Your task to perform on an android device: Do I have any events this weekend? Image 0: 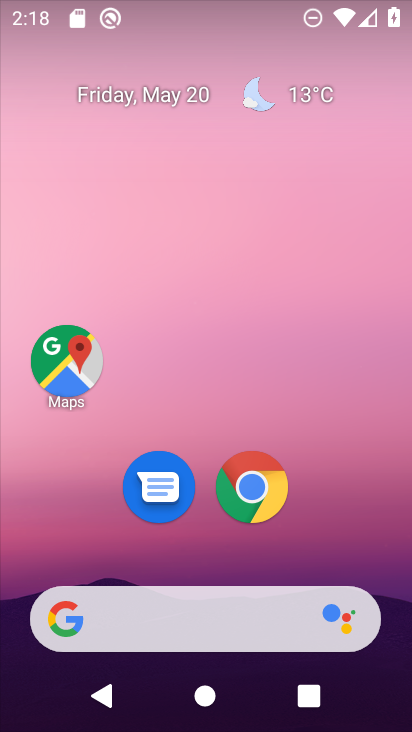
Step 0: press home button
Your task to perform on an android device: Do I have any events this weekend? Image 1: 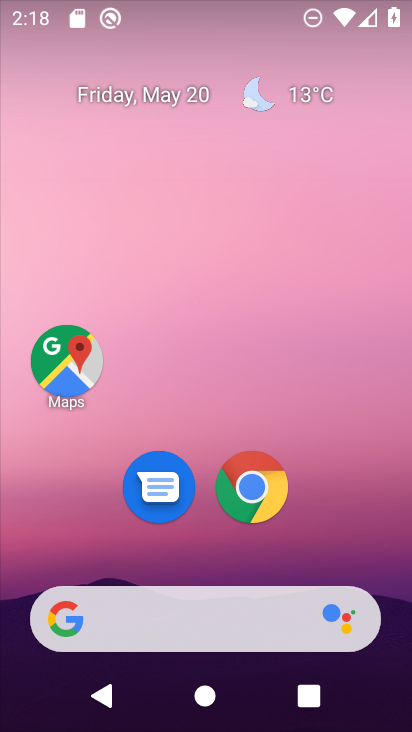
Step 1: drag from (211, 558) to (252, 262)
Your task to perform on an android device: Do I have any events this weekend? Image 2: 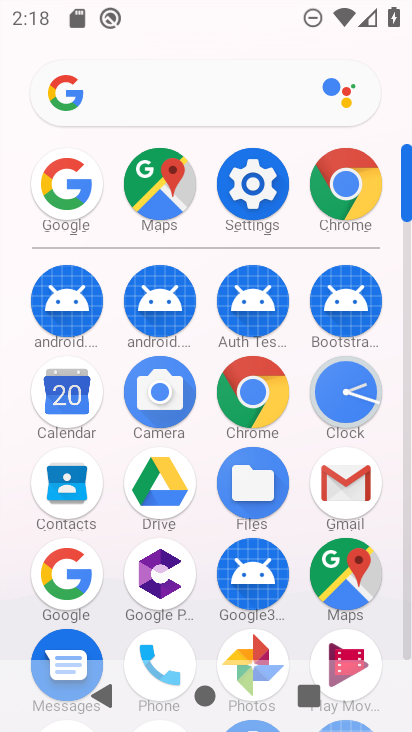
Step 2: click (66, 395)
Your task to perform on an android device: Do I have any events this weekend? Image 3: 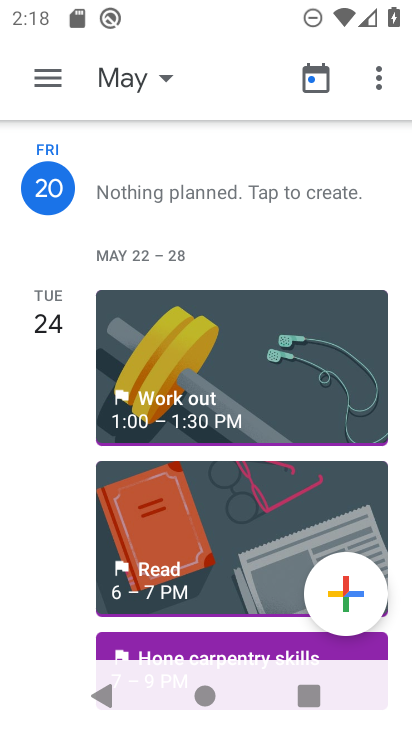
Step 3: click (71, 481)
Your task to perform on an android device: Do I have any events this weekend? Image 4: 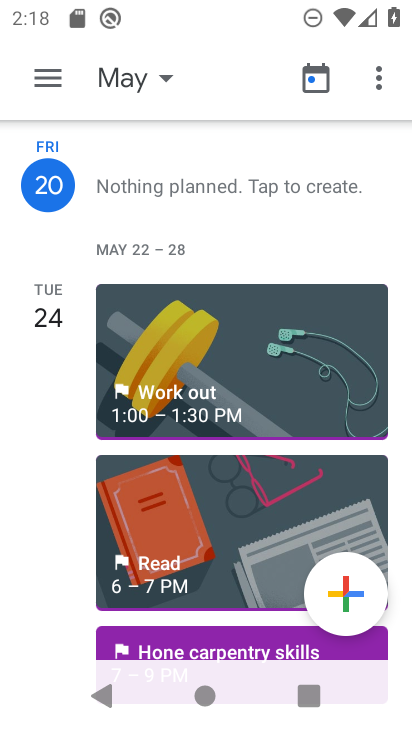
Step 4: click (71, 404)
Your task to perform on an android device: Do I have any events this weekend? Image 5: 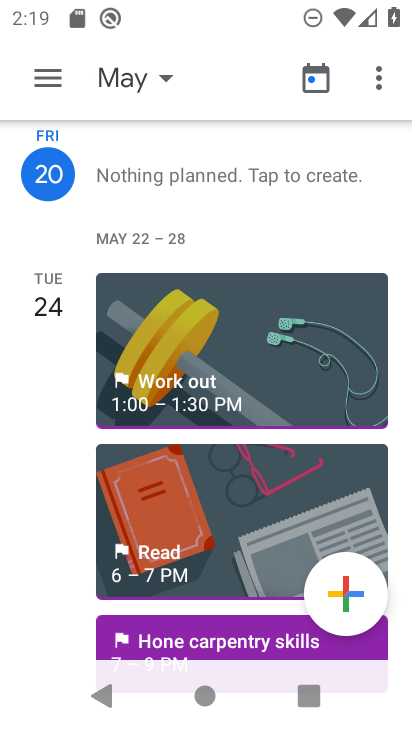
Step 5: click (49, 259)
Your task to perform on an android device: Do I have any events this weekend? Image 6: 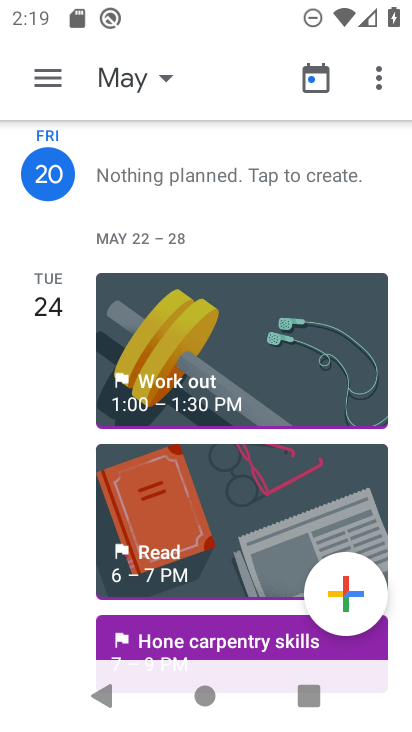
Step 6: task complete